Your task to perform on an android device: search for starred emails in the gmail app Image 0: 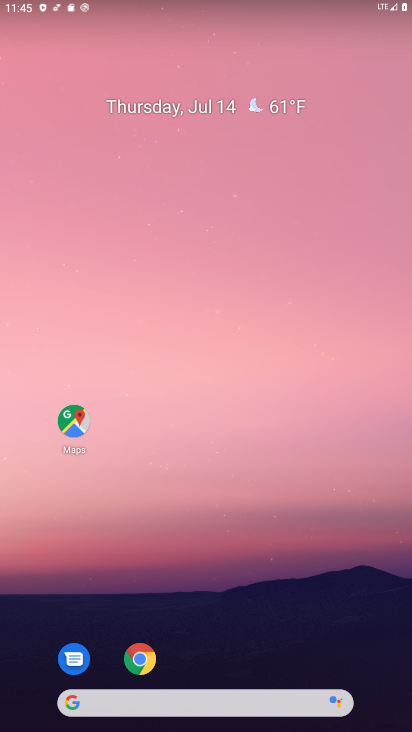
Step 0: press home button
Your task to perform on an android device: search for starred emails in the gmail app Image 1: 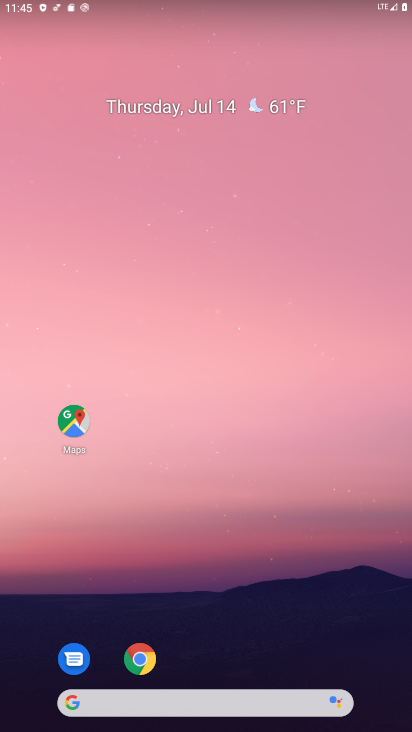
Step 1: drag from (229, 706) to (278, 156)
Your task to perform on an android device: search for starred emails in the gmail app Image 2: 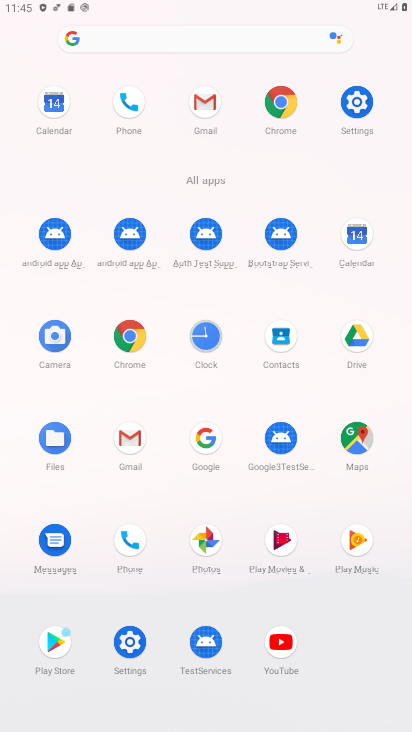
Step 2: click (205, 100)
Your task to perform on an android device: search for starred emails in the gmail app Image 3: 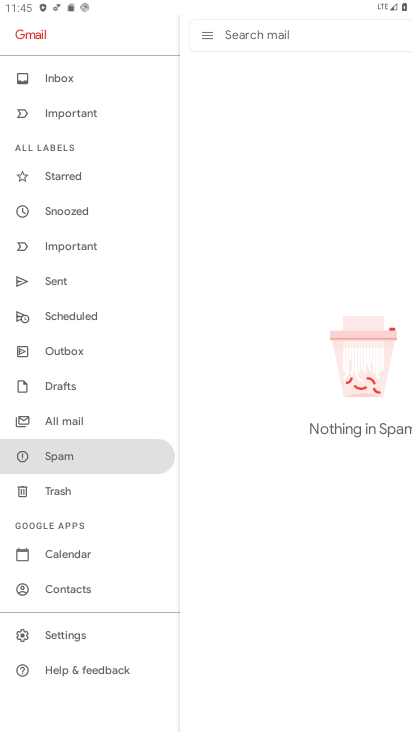
Step 3: click (80, 79)
Your task to perform on an android device: search for starred emails in the gmail app Image 4: 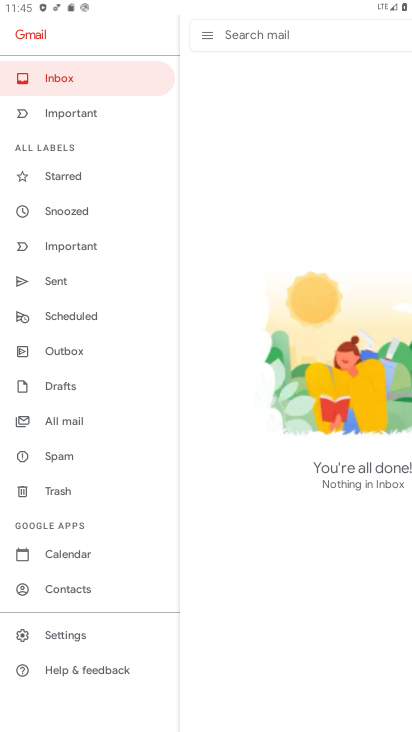
Step 4: click (80, 112)
Your task to perform on an android device: search for starred emails in the gmail app Image 5: 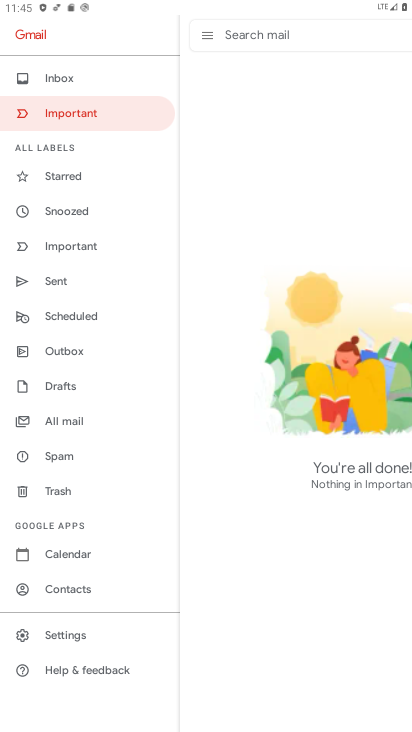
Step 5: click (68, 177)
Your task to perform on an android device: search for starred emails in the gmail app Image 6: 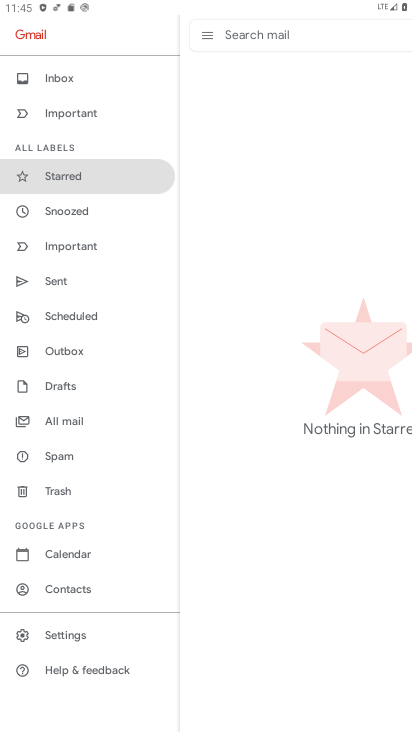
Step 6: click (75, 218)
Your task to perform on an android device: search for starred emails in the gmail app Image 7: 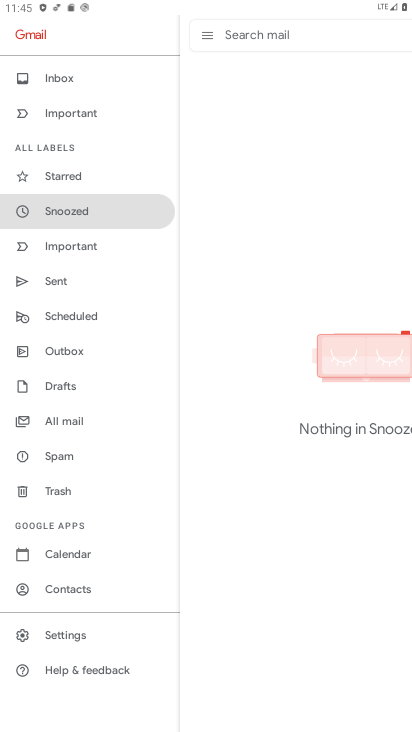
Step 7: click (75, 245)
Your task to perform on an android device: search for starred emails in the gmail app Image 8: 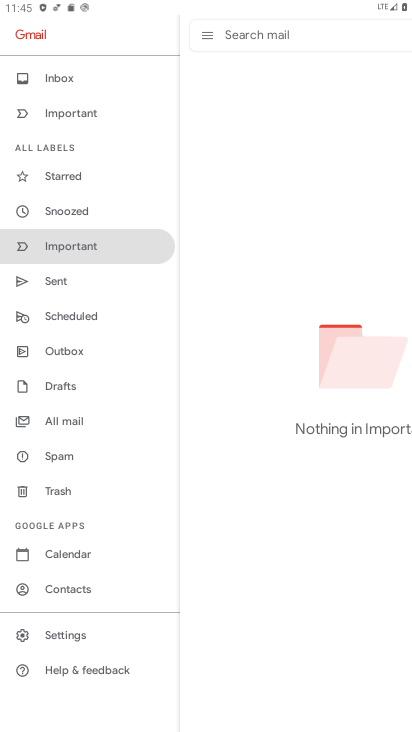
Step 8: click (73, 283)
Your task to perform on an android device: search for starred emails in the gmail app Image 9: 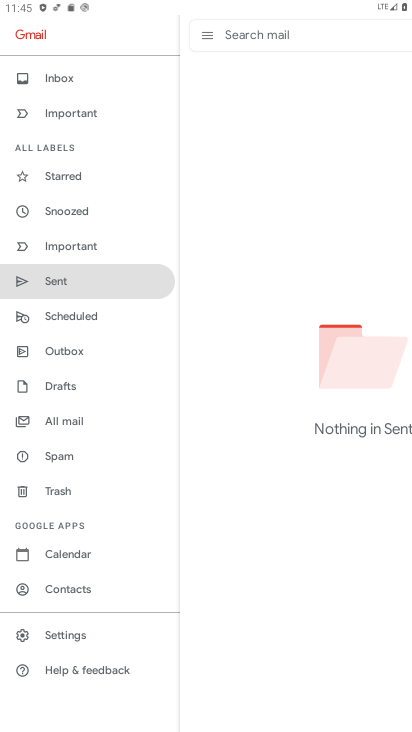
Step 9: click (78, 320)
Your task to perform on an android device: search for starred emails in the gmail app Image 10: 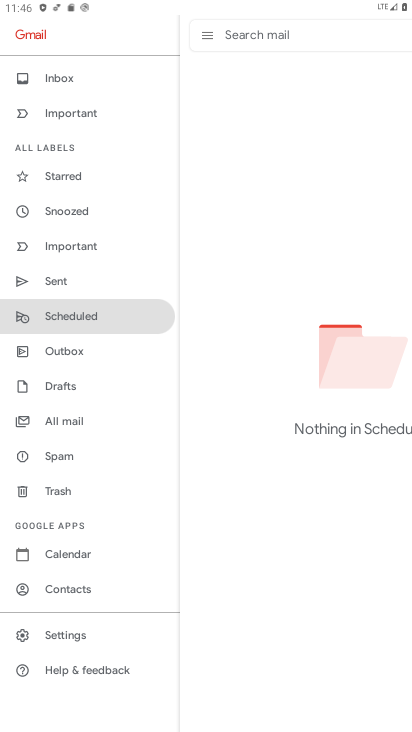
Step 10: click (71, 345)
Your task to perform on an android device: search for starred emails in the gmail app Image 11: 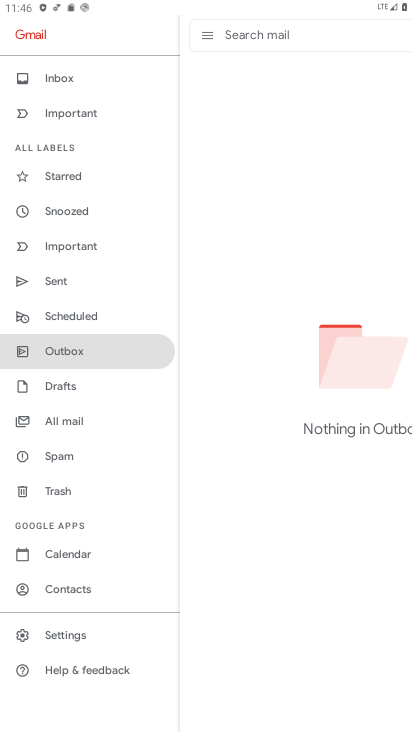
Step 11: click (70, 387)
Your task to perform on an android device: search for starred emails in the gmail app Image 12: 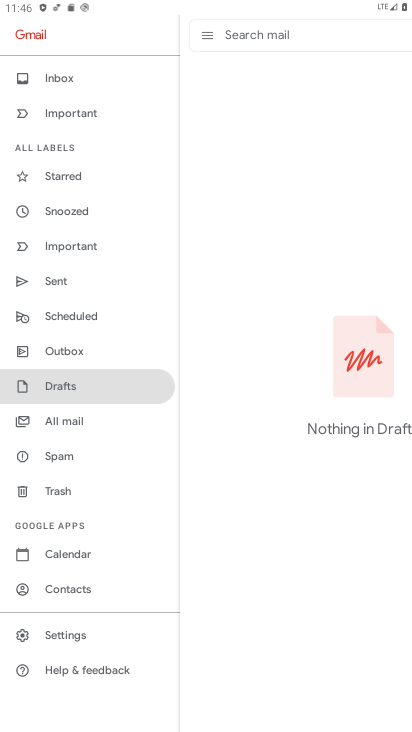
Step 12: click (74, 422)
Your task to perform on an android device: search for starred emails in the gmail app Image 13: 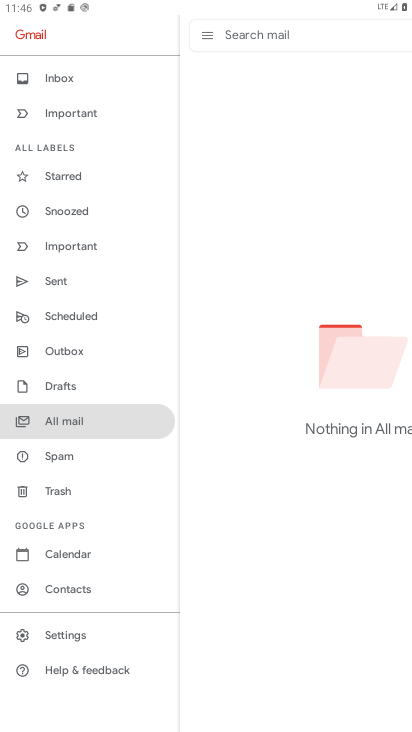
Step 13: click (67, 460)
Your task to perform on an android device: search for starred emails in the gmail app Image 14: 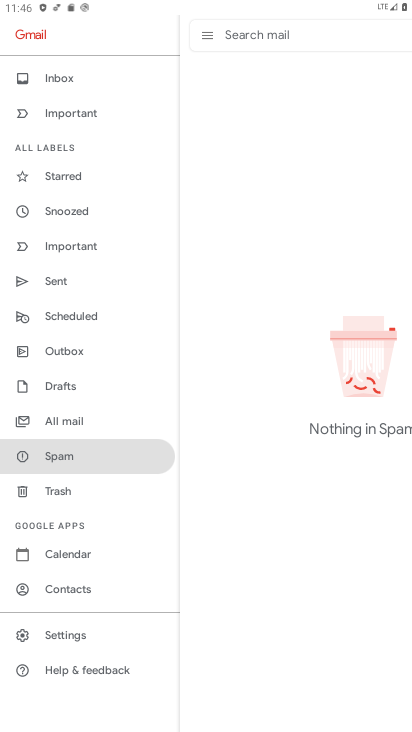
Step 14: click (79, 493)
Your task to perform on an android device: search for starred emails in the gmail app Image 15: 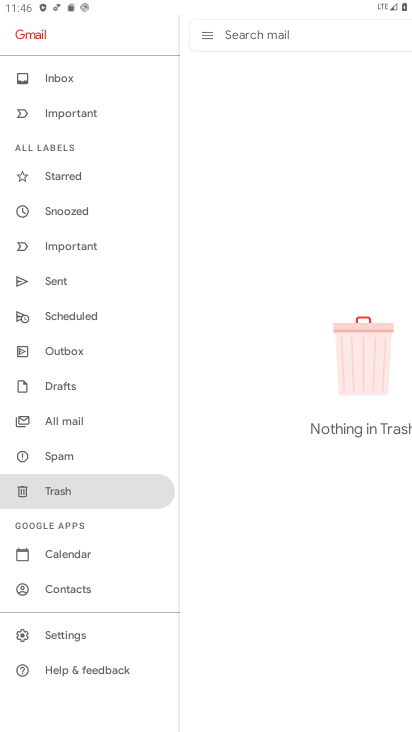
Step 15: task complete